Your task to perform on an android device: add a contact in the contacts app Image 0: 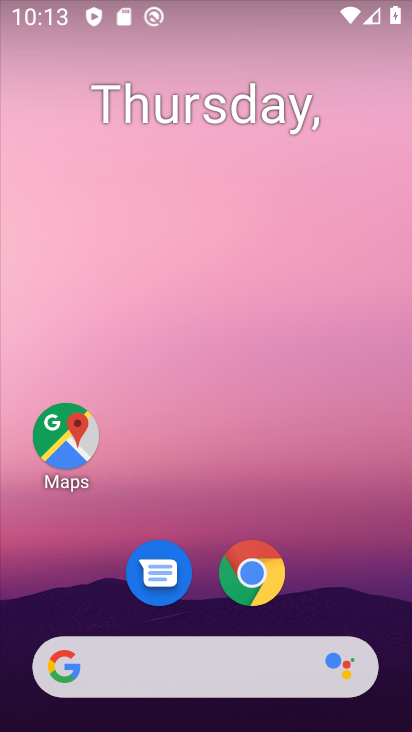
Step 0: drag from (313, 507) to (281, 122)
Your task to perform on an android device: add a contact in the contacts app Image 1: 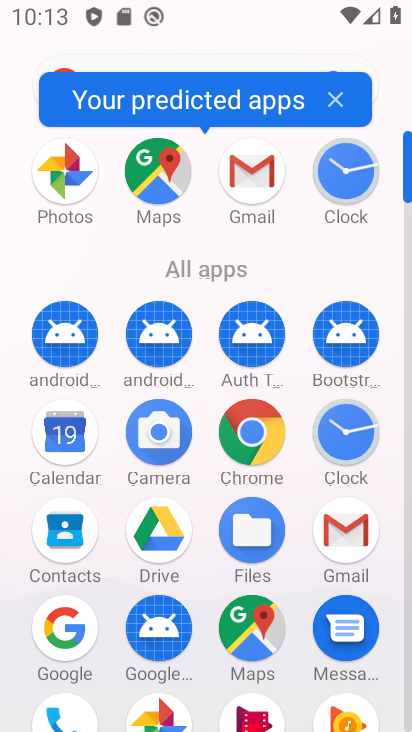
Step 1: drag from (216, 609) to (242, 232)
Your task to perform on an android device: add a contact in the contacts app Image 2: 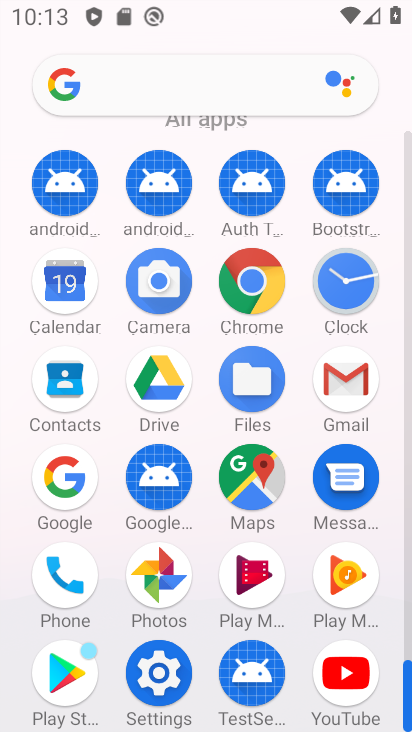
Step 2: click (74, 376)
Your task to perform on an android device: add a contact in the contacts app Image 3: 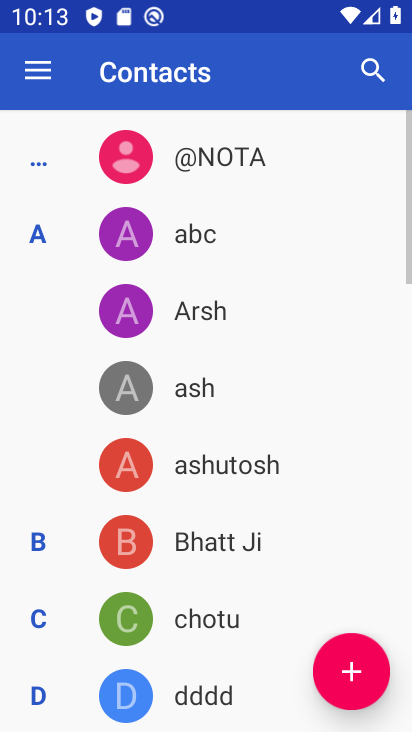
Step 3: click (370, 674)
Your task to perform on an android device: add a contact in the contacts app Image 4: 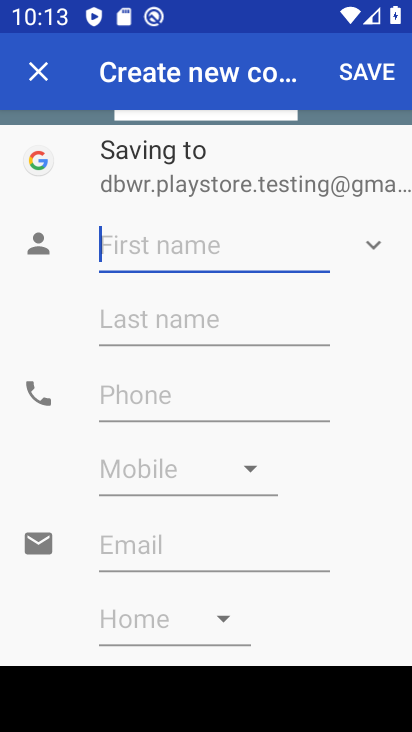
Step 4: click (170, 238)
Your task to perform on an android device: add a contact in the contacts app Image 5: 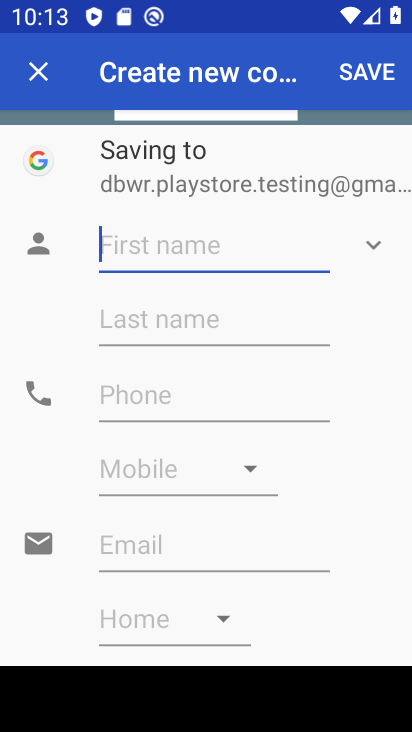
Step 5: type "hhghghgh"
Your task to perform on an android device: add a contact in the contacts app Image 6: 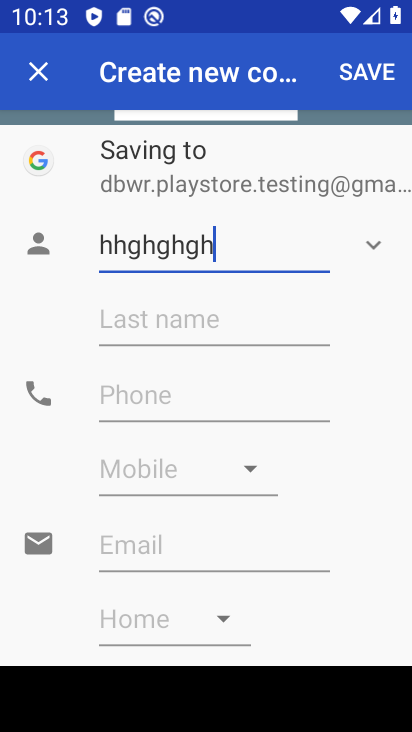
Step 6: click (371, 74)
Your task to perform on an android device: add a contact in the contacts app Image 7: 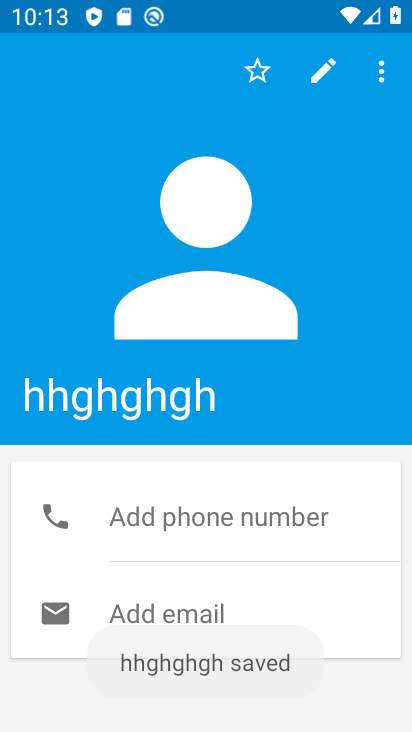
Step 7: task complete